Your task to perform on an android device: What is the news today? Image 0: 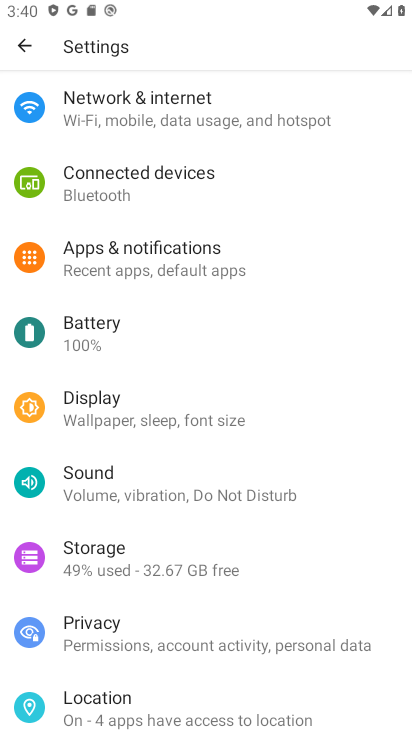
Step 0: click (17, 33)
Your task to perform on an android device: What is the news today? Image 1: 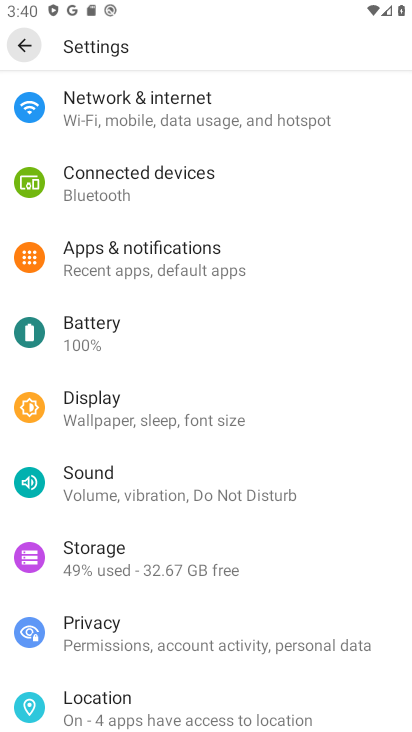
Step 1: click (17, 33)
Your task to perform on an android device: What is the news today? Image 2: 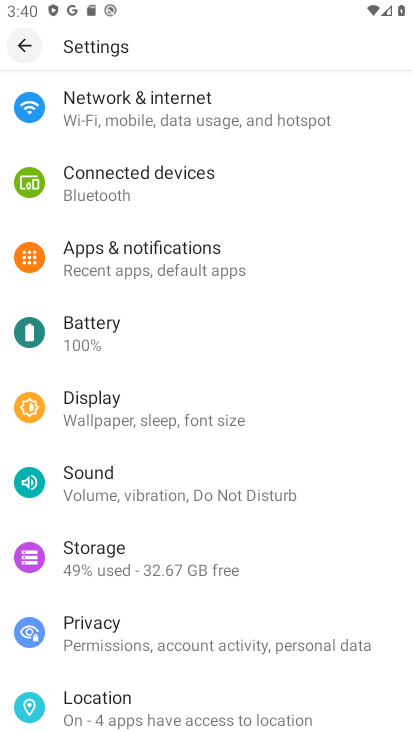
Step 2: click (18, 33)
Your task to perform on an android device: What is the news today? Image 3: 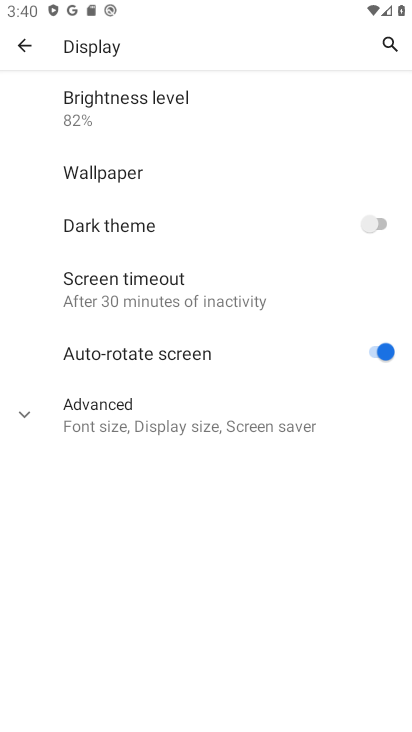
Step 3: click (21, 41)
Your task to perform on an android device: What is the news today? Image 4: 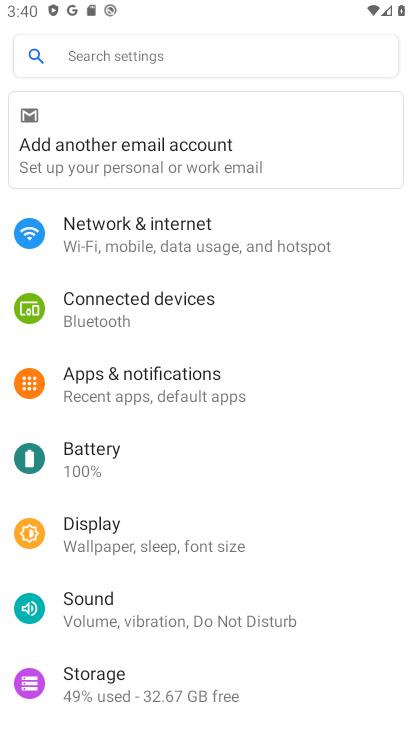
Step 4: task complete